Your task to perform on an android device: move a message to another label in the gmail app Image 0: 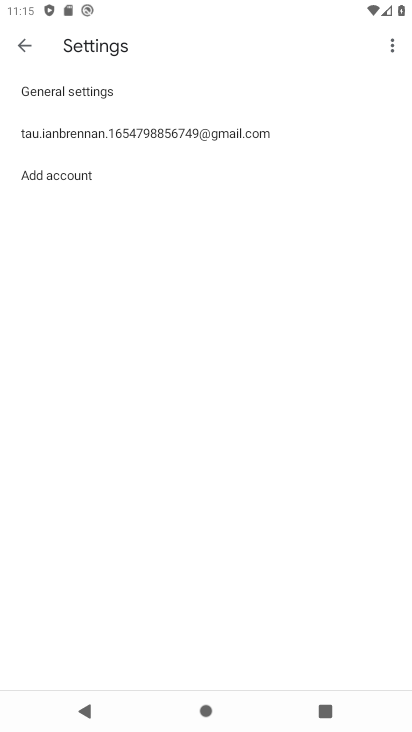
Step 0: press home button
Your task to perform on an android device: move a message to another label in the gmail app Image 1: 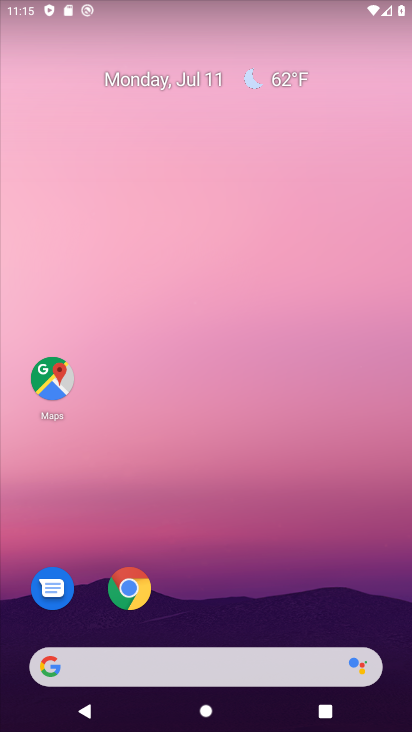
Step 1: drag from (209, 616) to (195, 9)
Your task to perform on an android device: move a message to another label in the gmail app Image 2: 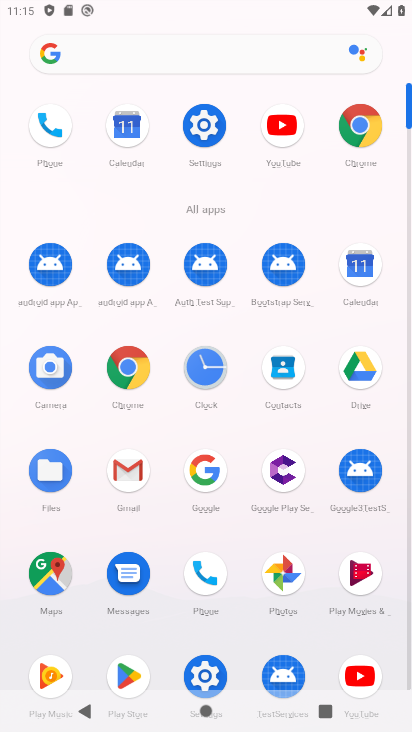
Step 2: click (361, 121)
Your task to perform on an android device: move a message to another label in the gmail app Image 3: 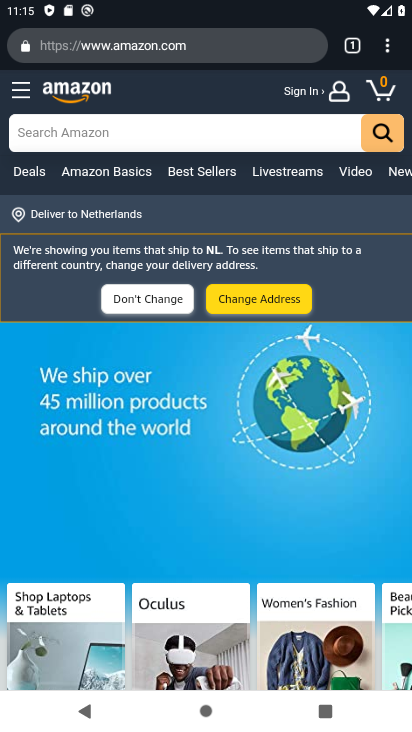
Step 3: click (384, 47)
Your task to perform on an android device: move a message to another label in the gmail app Image 4: 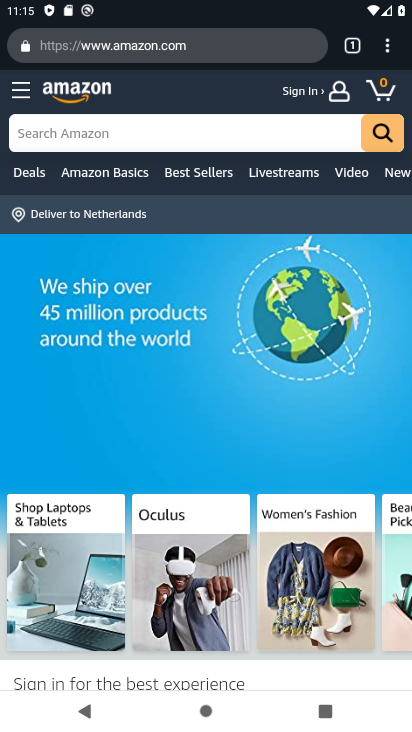
Step 4: click (386, 43)
Your task to perform on an android device: move a message to another label in the gmail app Image 5: 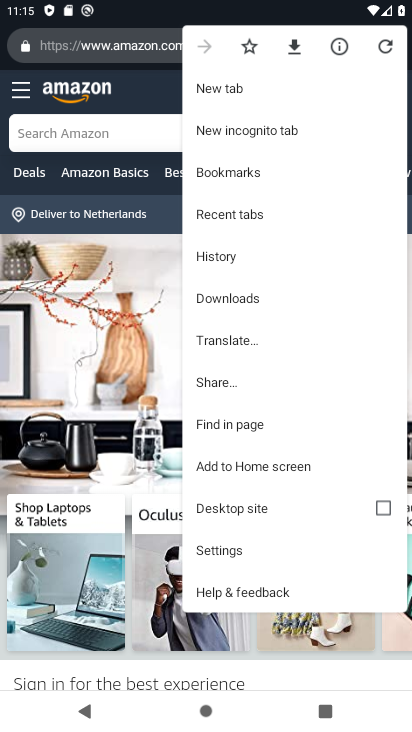
Step 5: click (247, 546)
Your task to perform on an android device: move a message to another label in the gmail app Image 6: 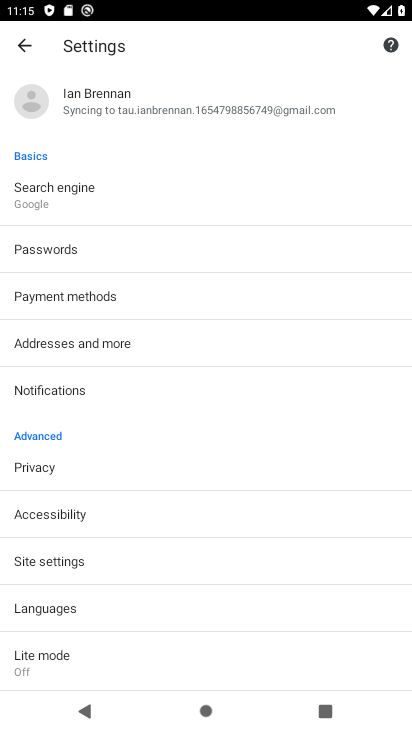
Step 6: task complete